Your task to perform on an android device: What's the weather going to be this weekend? Image 0: 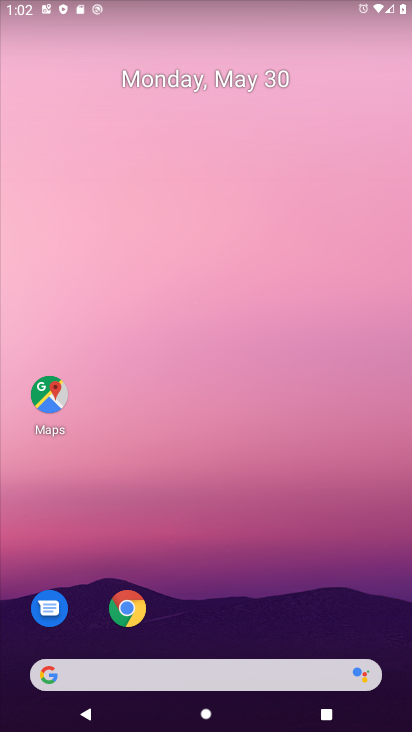
Step 0: click (177, 665)
Your task to perform on an android device: What's the weather going to be this weekend? Image 1: 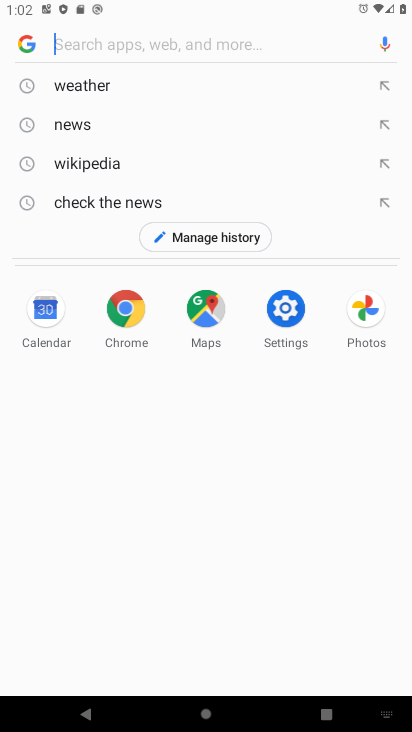
Step 1: click (42, 86)
Your task to perform on an android device: What's the weather going to be this weekend? Image 2: 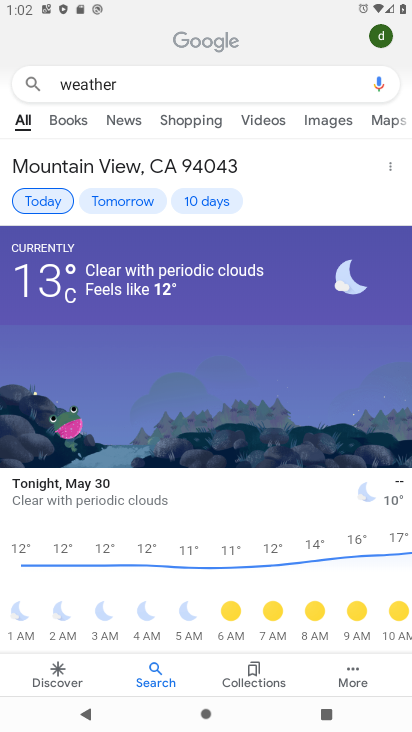
Step 2: click (225, 204)
Your task to perform on an android device: What's the weather going to be this weekend? Image 3: 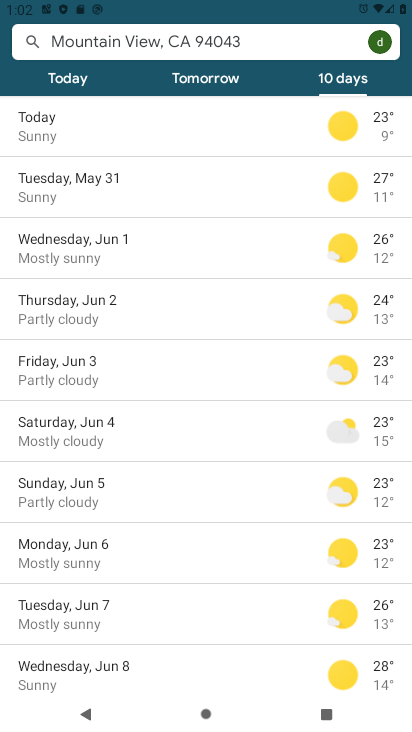
Step 3: task complete